Your task to perform on an android device: Open privacy settings Image 0: 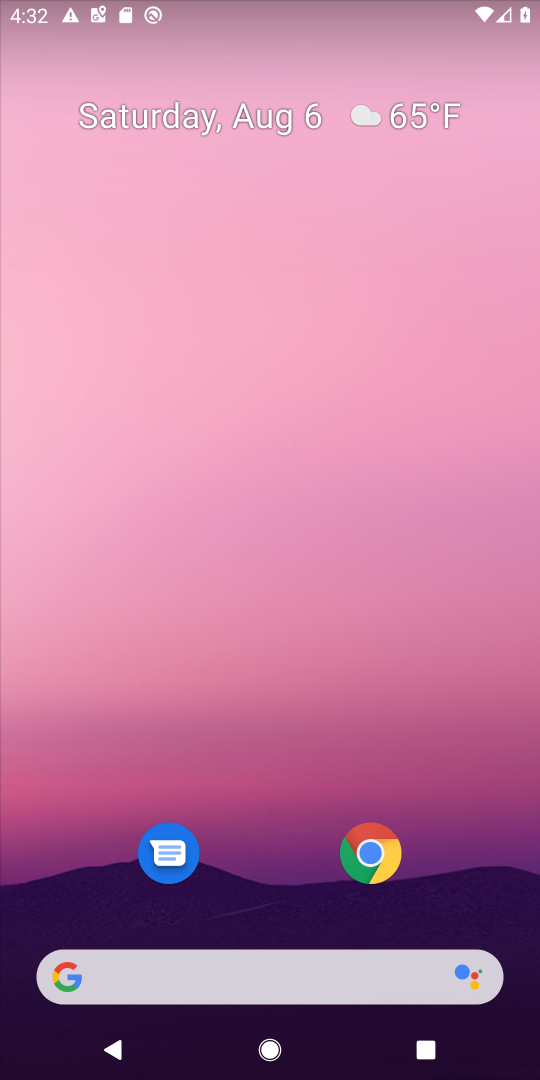
Step 0: click (421, 835)
Your task to perform on an android device: Open privacy settings Image 1: 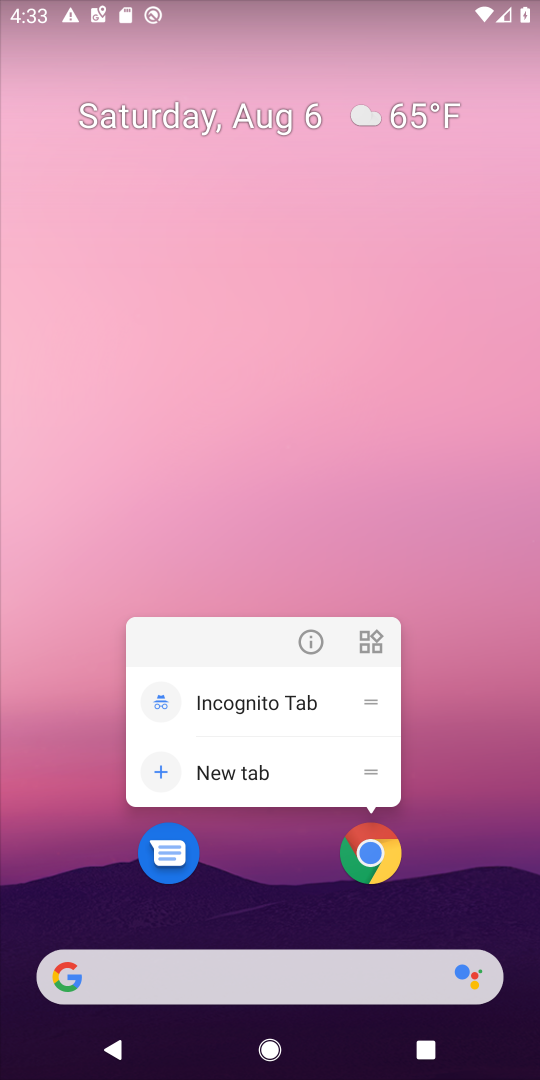
Step 1: click (361, 858)
Your task to perform on an android device: Open privacy settings Image 2: 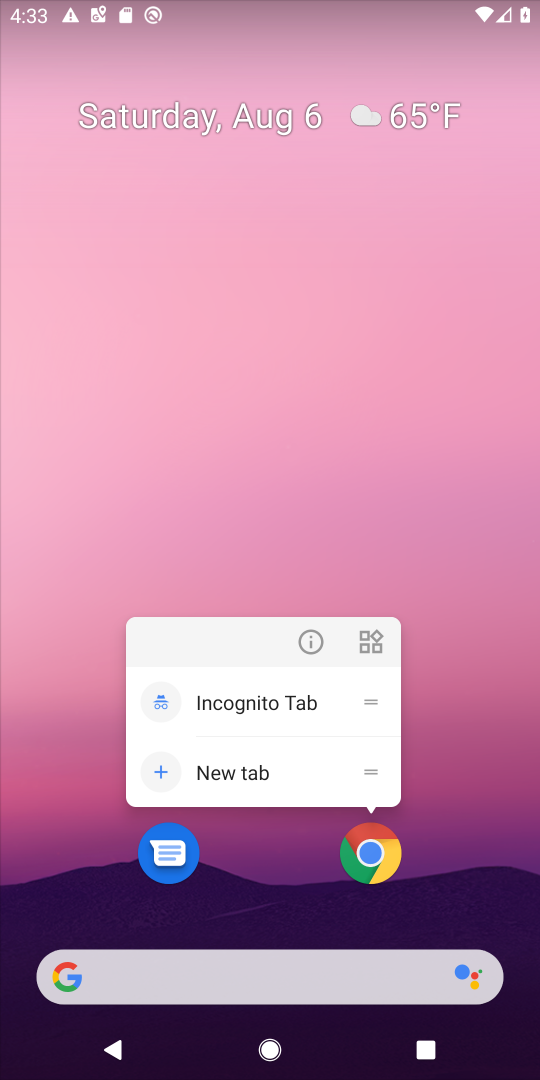
Step 2: click (368, 853)
Your task to perform on an android device: Open privacy settings Image 3: 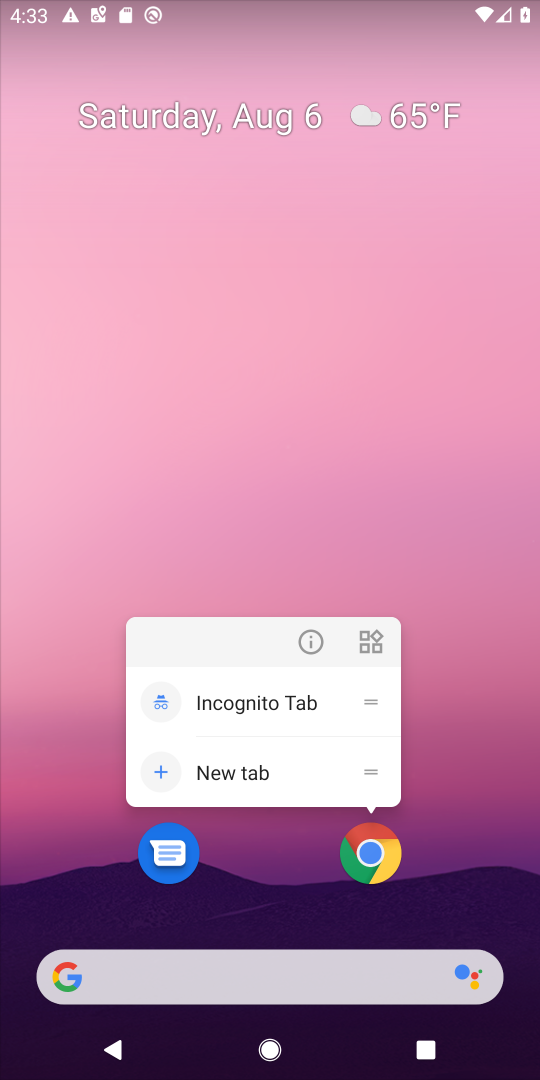
Step 3: click (375, 860)
Your task to perform on an android device: Open privacy settings Image 4: 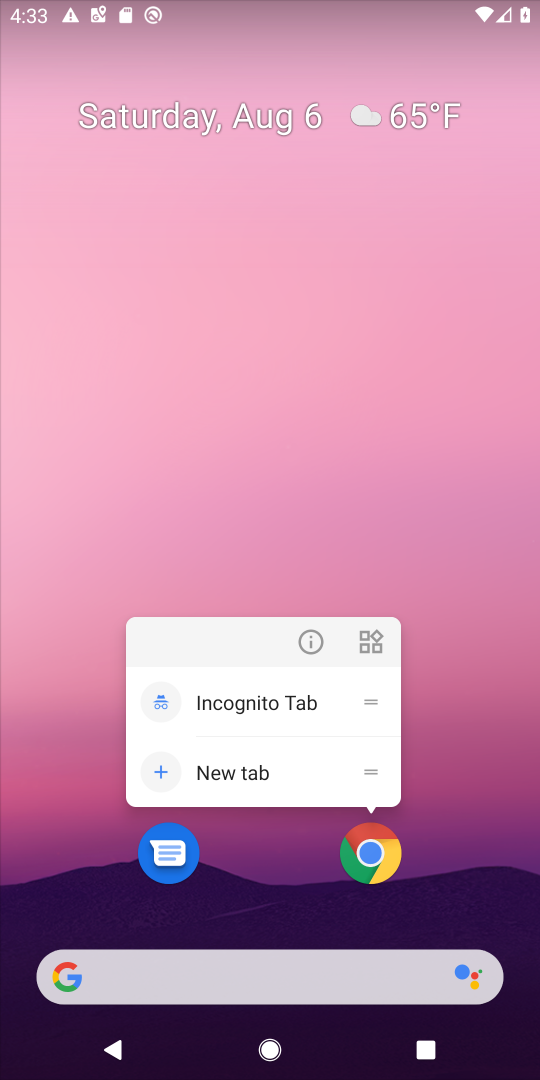
Step 4: click (373, 863)
Your task to perform on an android device: Open privacy settings Image 5: 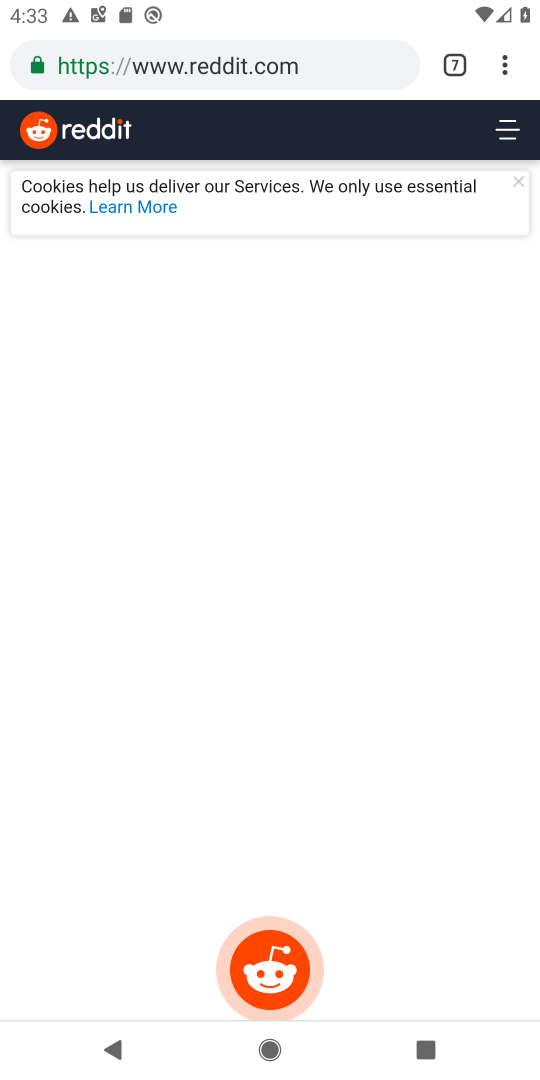
Step 5: drag from (504, 65) to (287, 788)
Your task to perform on an android device: Open privacy settings Image 6: 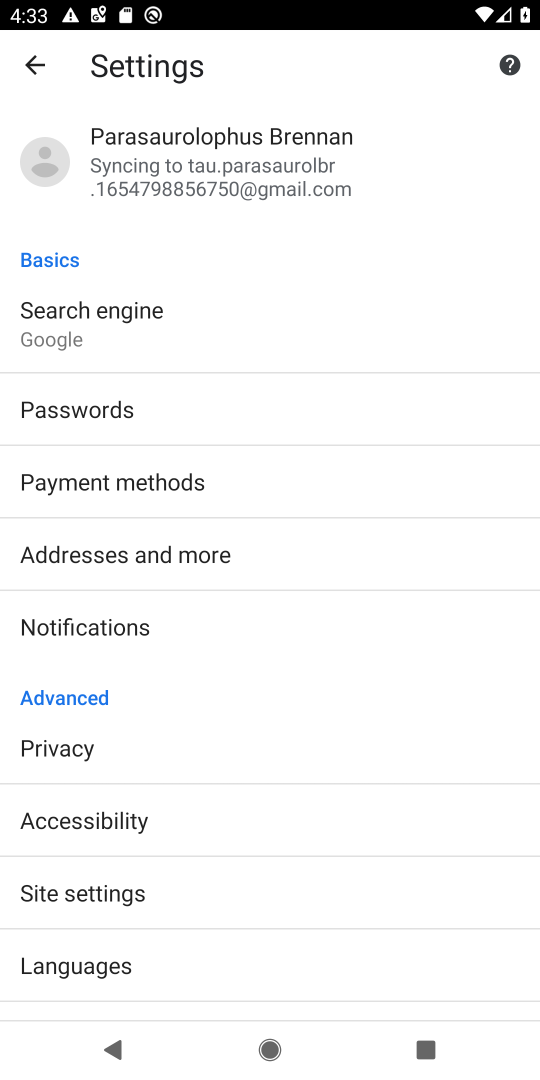
Step 6: click (87, 760)
Your task to perform on an android device: Open privacy settings Image 7: 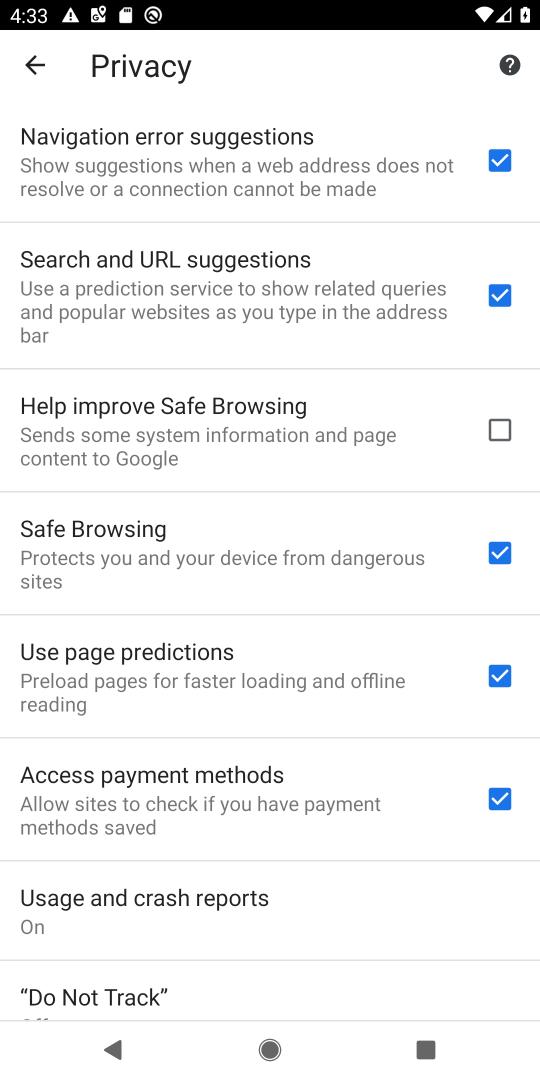
Step 7: task complete